Your task to perform on an android device: turn on location history Image 0: 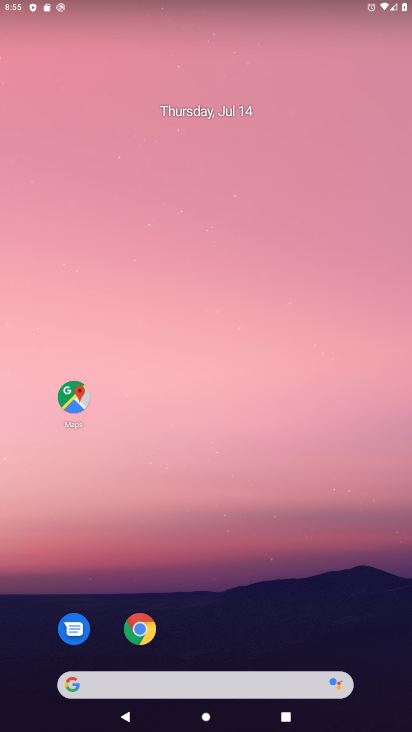
Step 0: drag from (265, 625) to (274, 31)
Your task to perform on an android device: turn on location history Image 1: 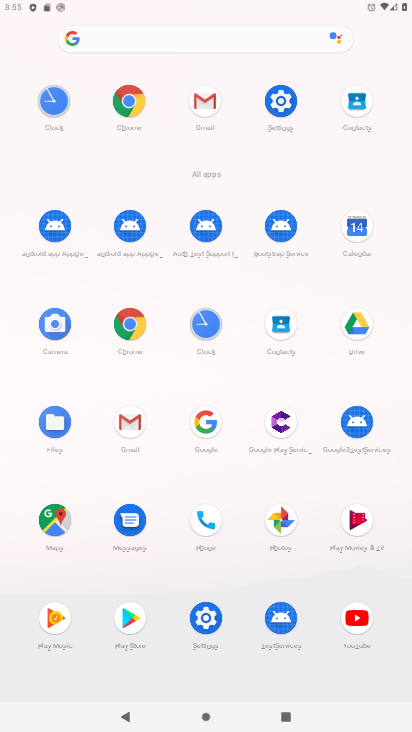
Step 1: click (285, 103)
Your task to perform on an android device: turn on location history Image 2: 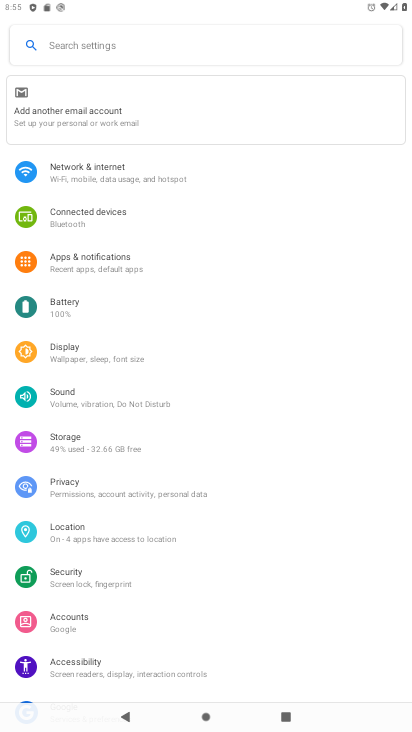
Step 2: click (74, 525)
Your task to perform on an android device: turn on location history Image 3: 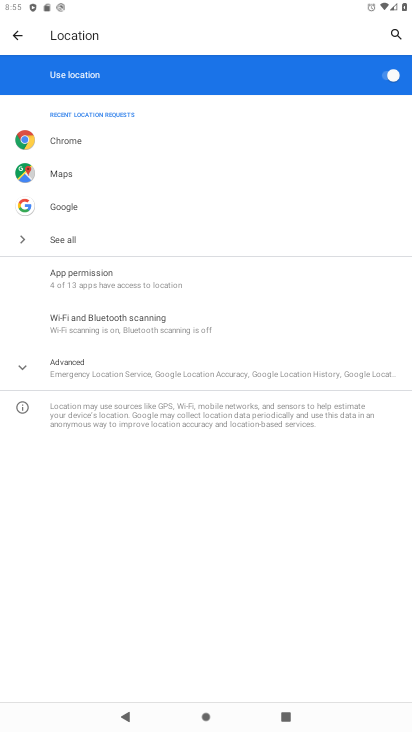
Step 3: click (209, 385)
Your task to perform on an android device: turn on location history Image 4: 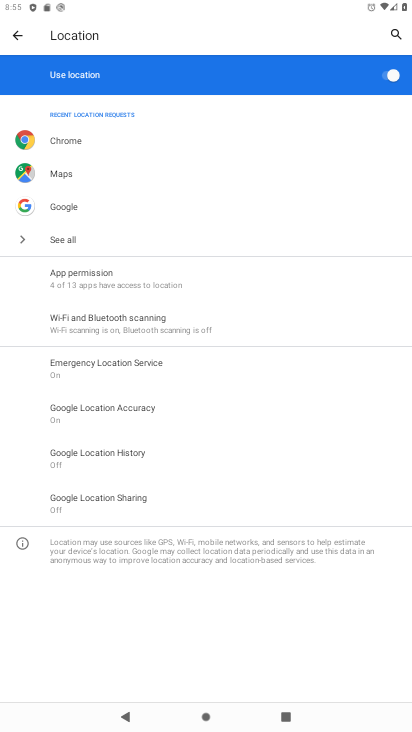
Step 4: click (130, 455)
Your task to perform on an android device: turn on location history Image 5: 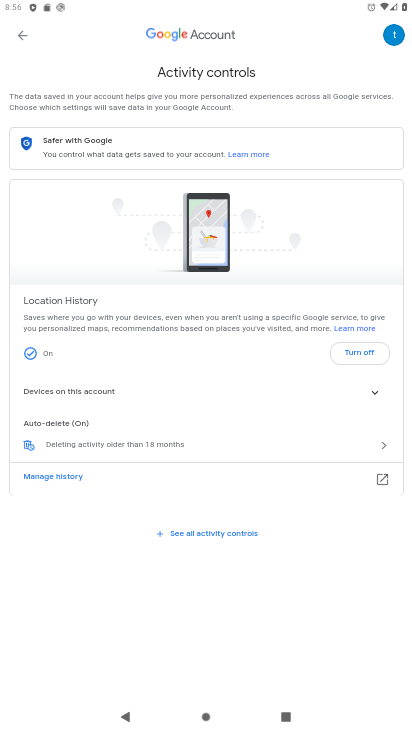
Step 5: task complete